Your task to perform on an android device: Show me the best rated 4K TV on Walmart. Image 0: 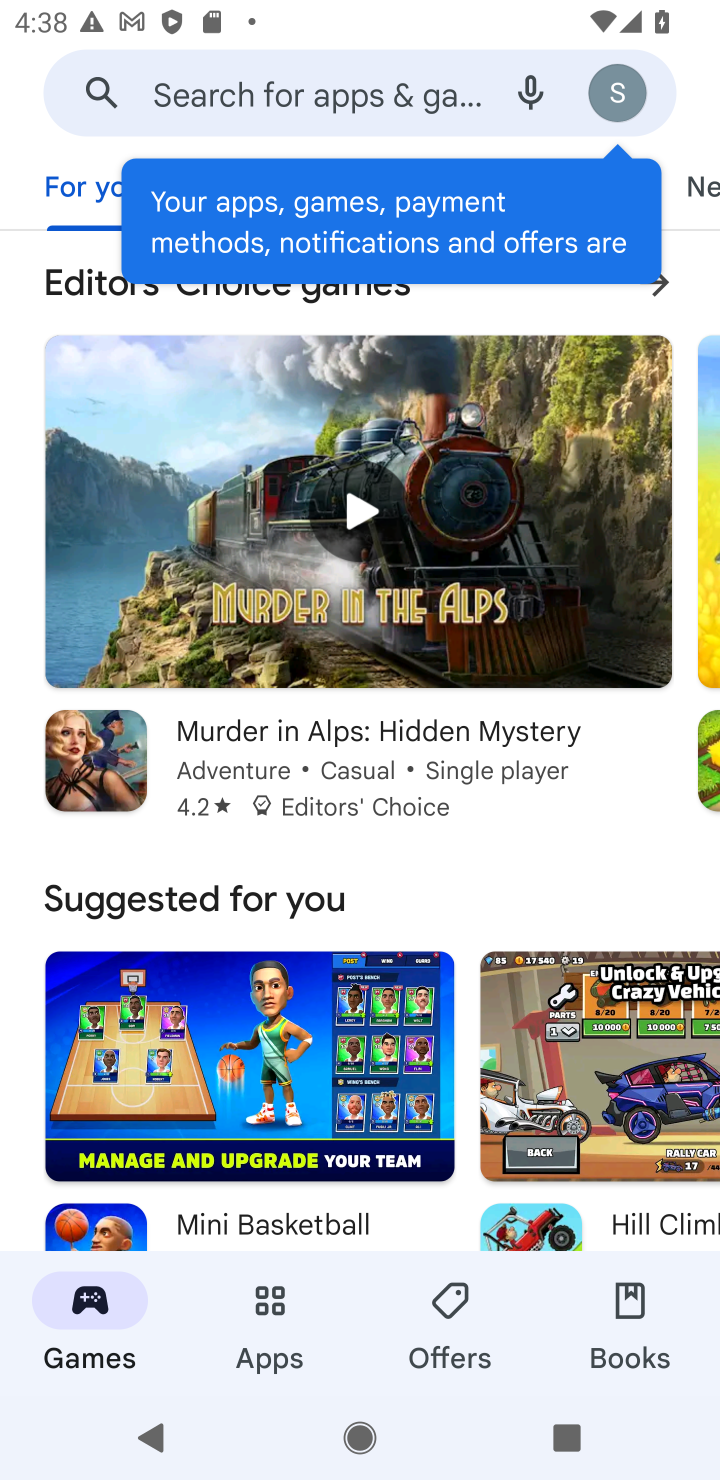
Step 0: press home button
Your task to perform on an android device: Show me the best rated 4K TV on Walmart. Image 1: 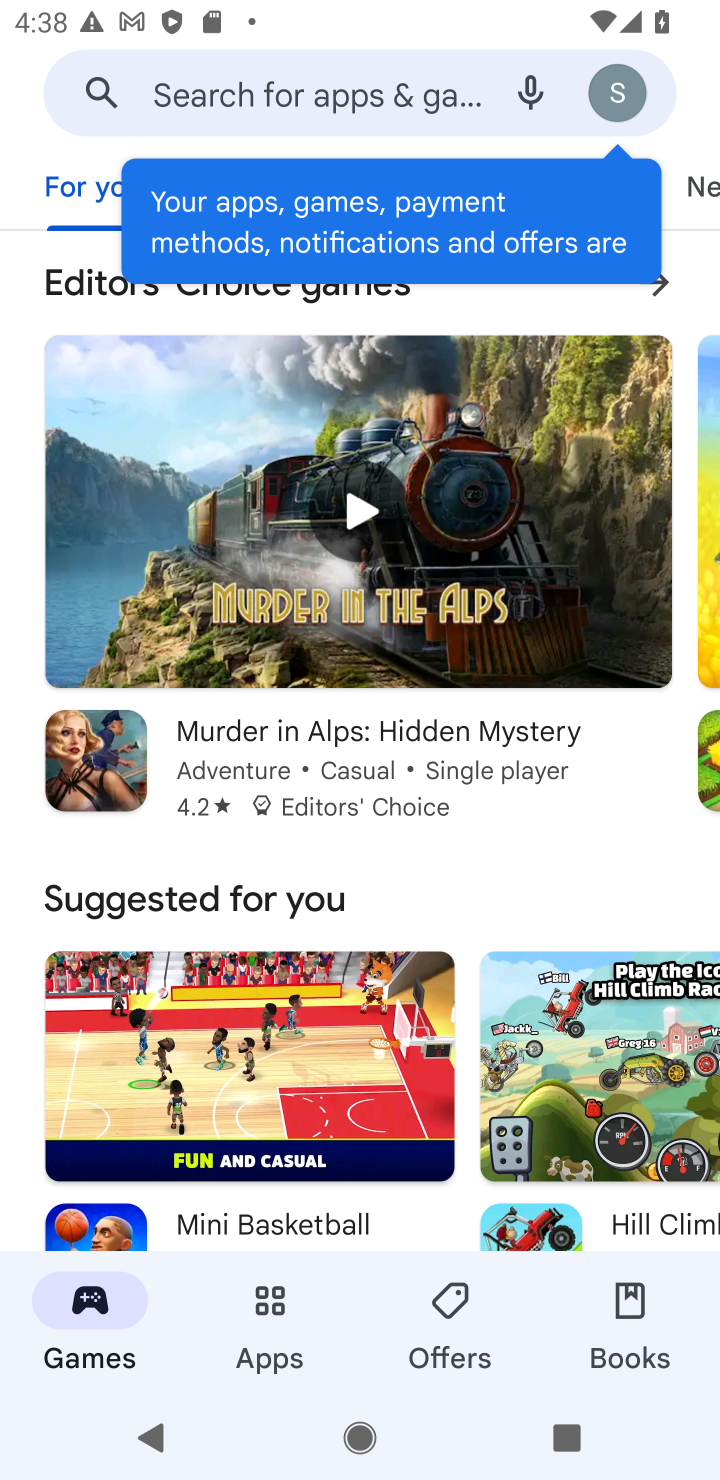
Step 1: press home button
Your task to perform on an android device: Show me the best rated 4K TV on Walmart. Image 2: 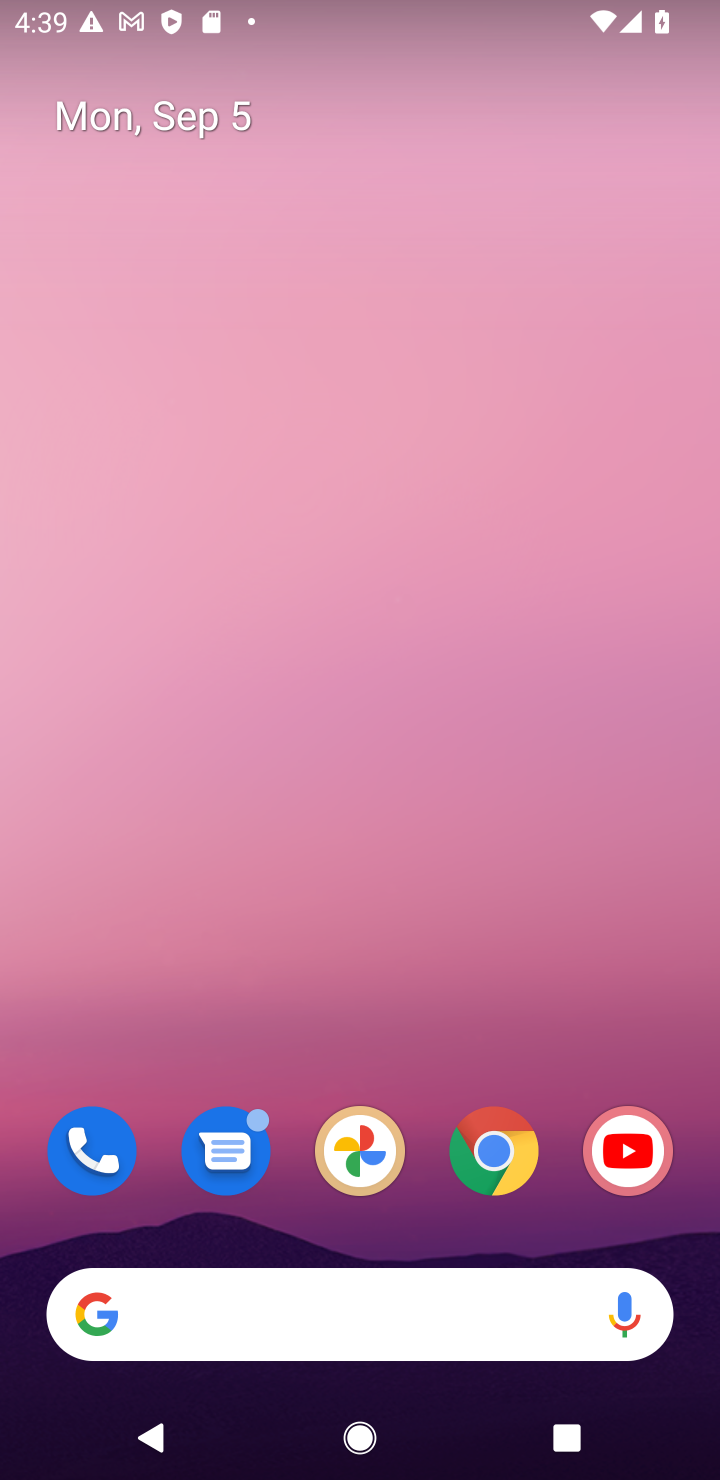
Step 2: click (509, 1157)
Your task to perform on an android device: Show me the best rated 4K TV on Walmart. Image 3: 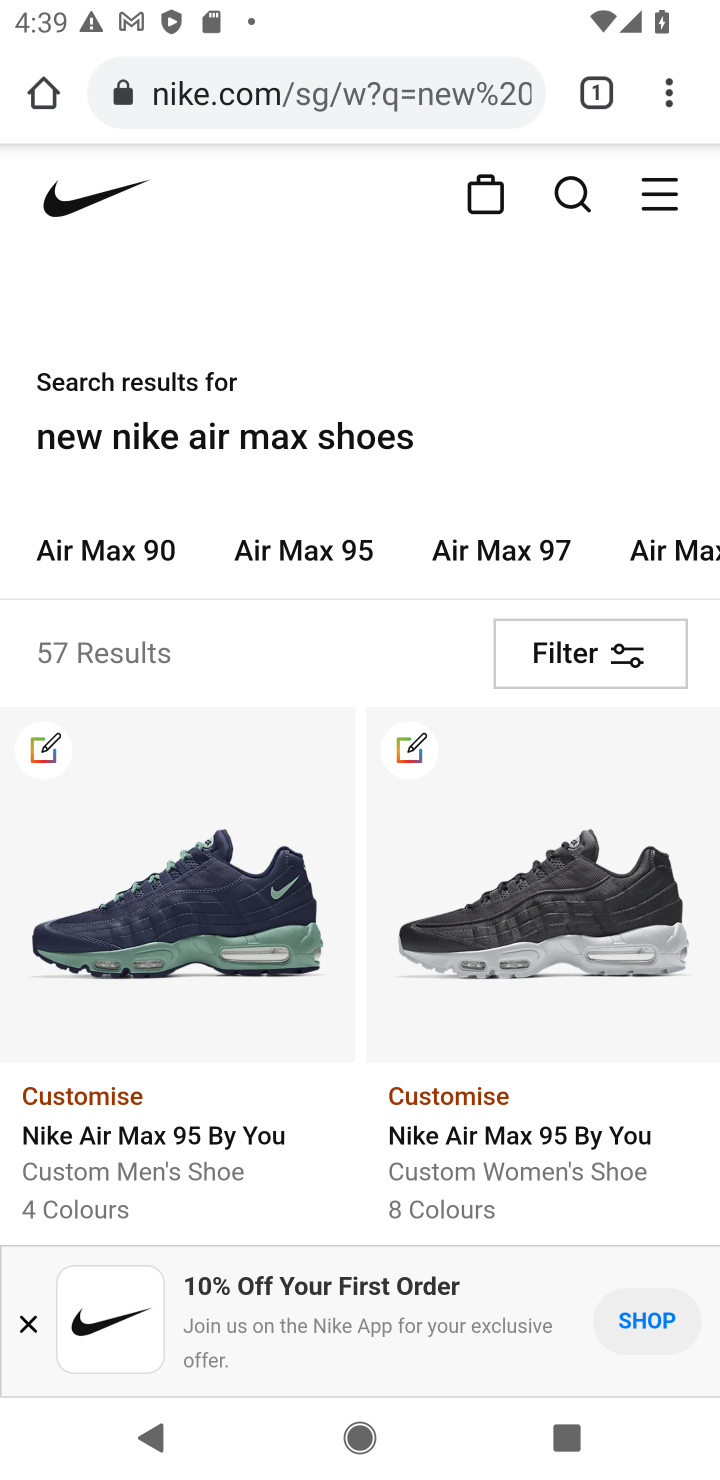
Step 3: click (493, 99)
Your task to perform on an android device: Show me the best rated 4K TV on Walmart. Image 4: 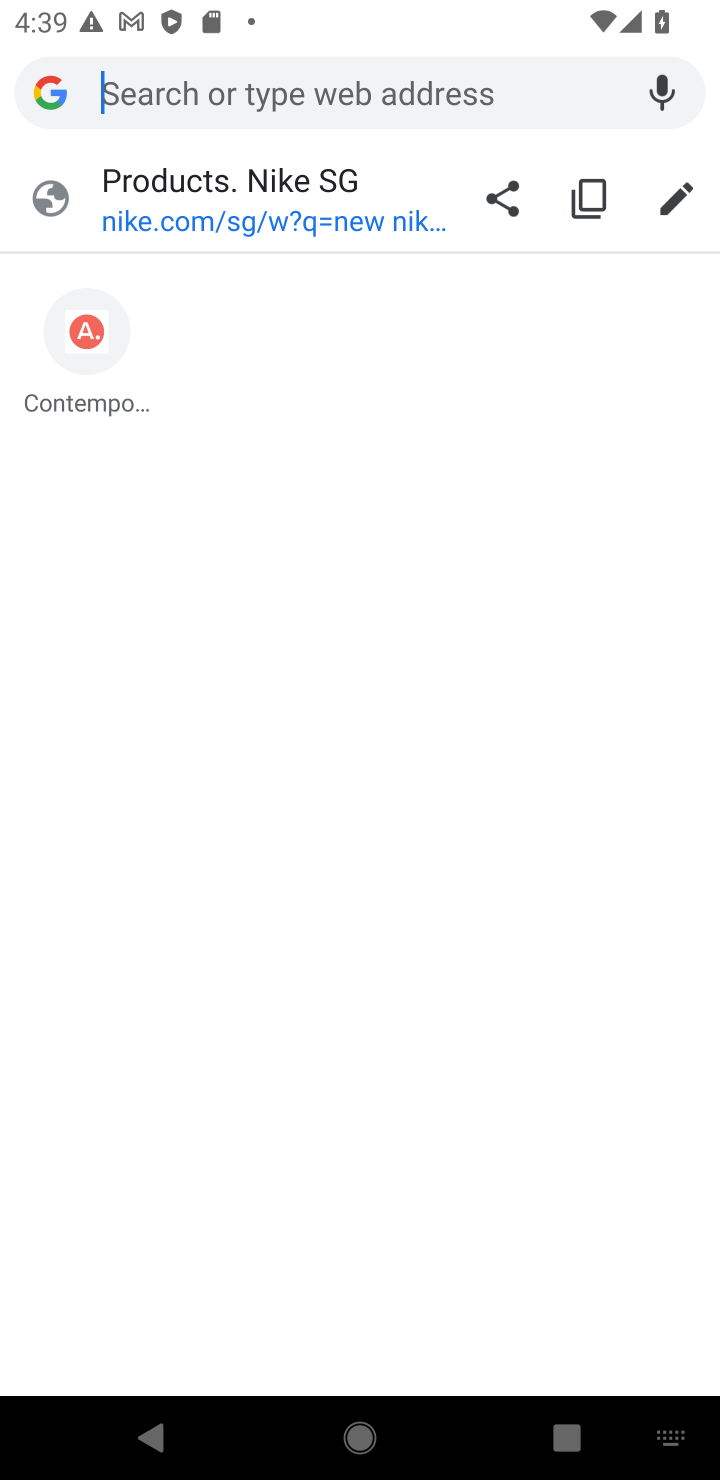
Step 4: type "walmart"
Your task to perform on an android device: Show me the best rated 4K TV on Walmart. Image 5: 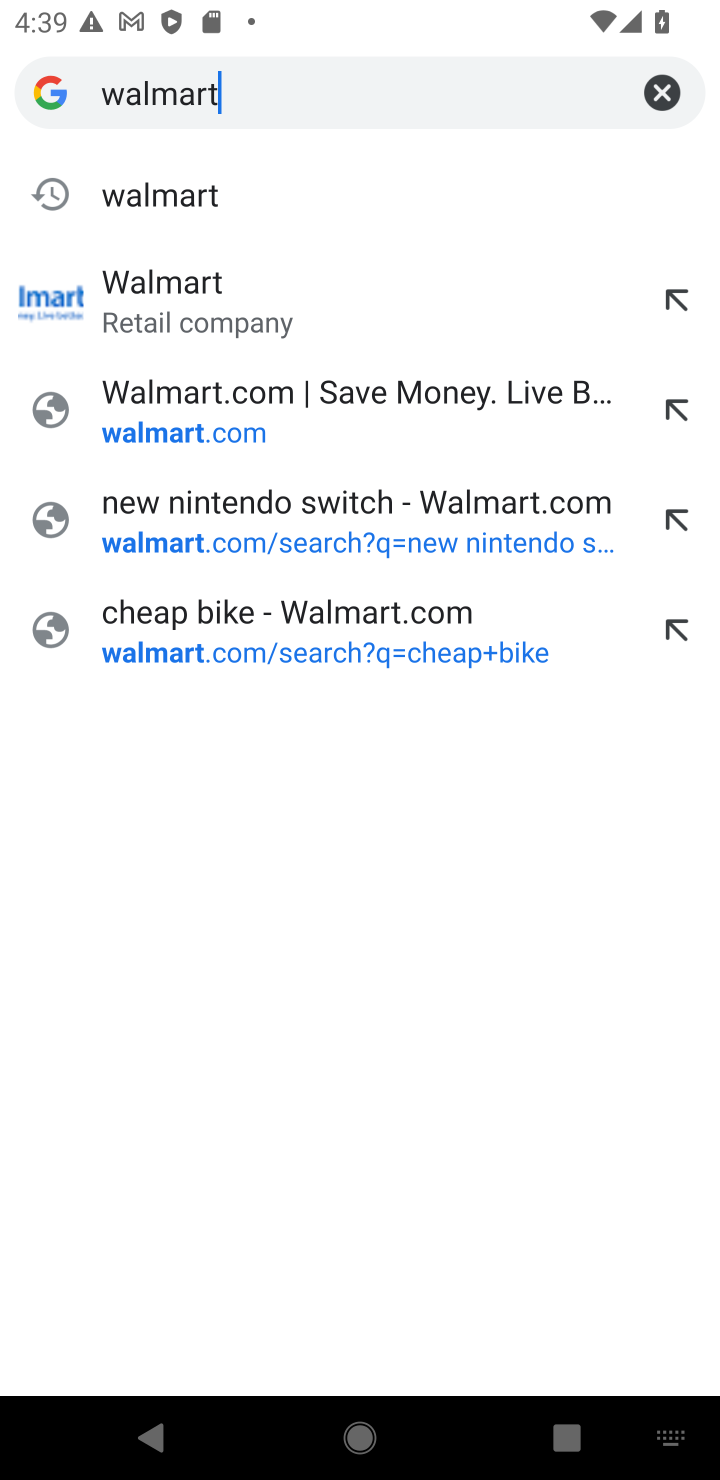
Step 5: click (309, 176)
Your task to perform on an android device: Show me the best rated 4K TV on Walmart. Image 6: 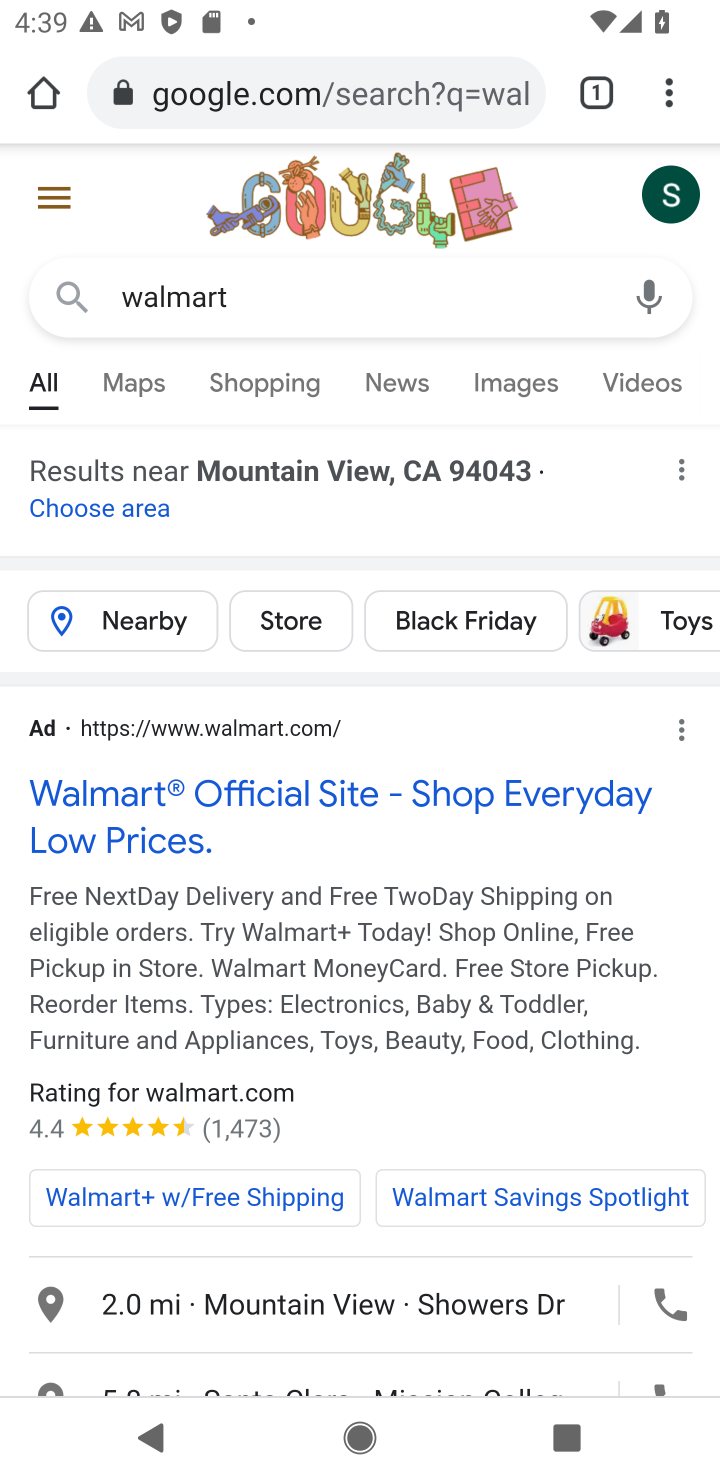
Step 6: drag from (363, 837) to (464, 364)
Your task to perform on an android device: Show me the best rated 4K TV on Walmart. Image 7: 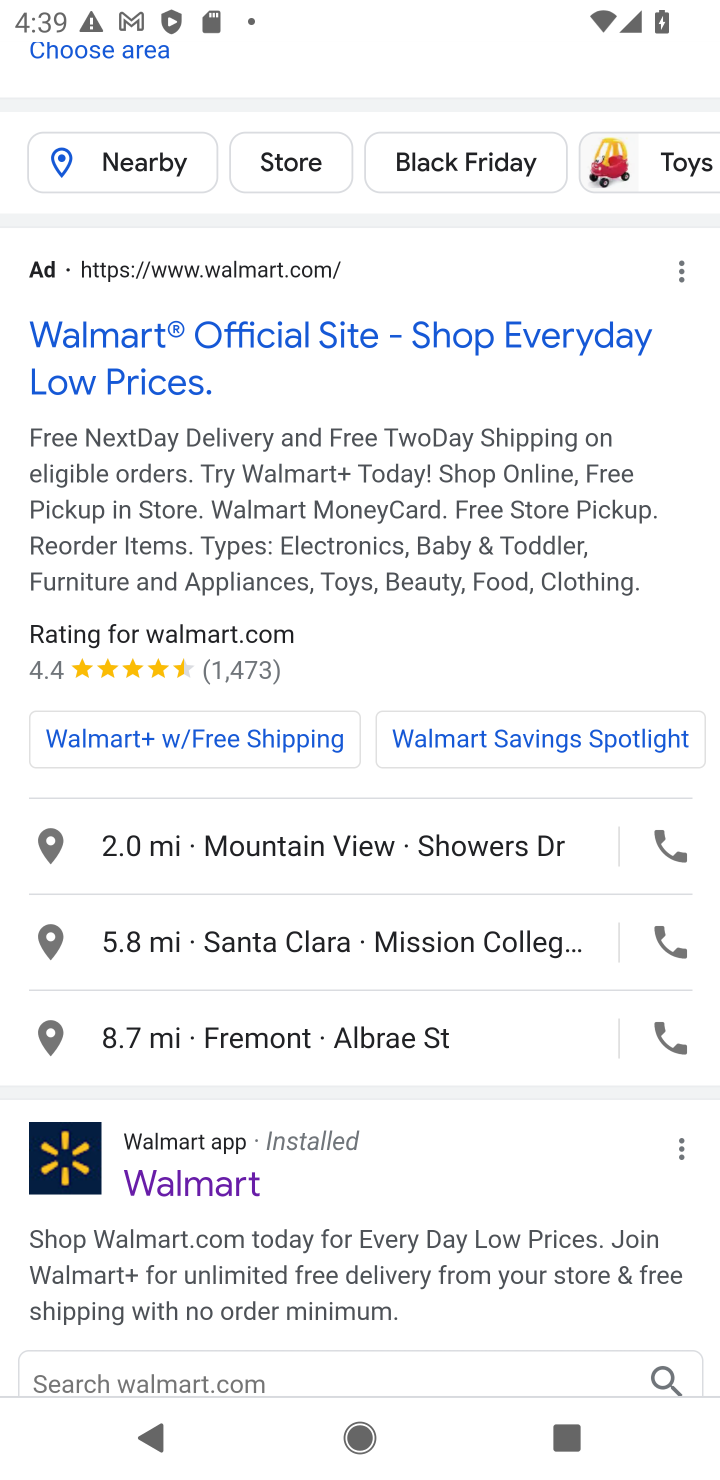
Step 7: drag from (412, 847) to (442, 502)
Your task to perform on an android device: Show me the best rated 4K TV on Walmart. Image 8: 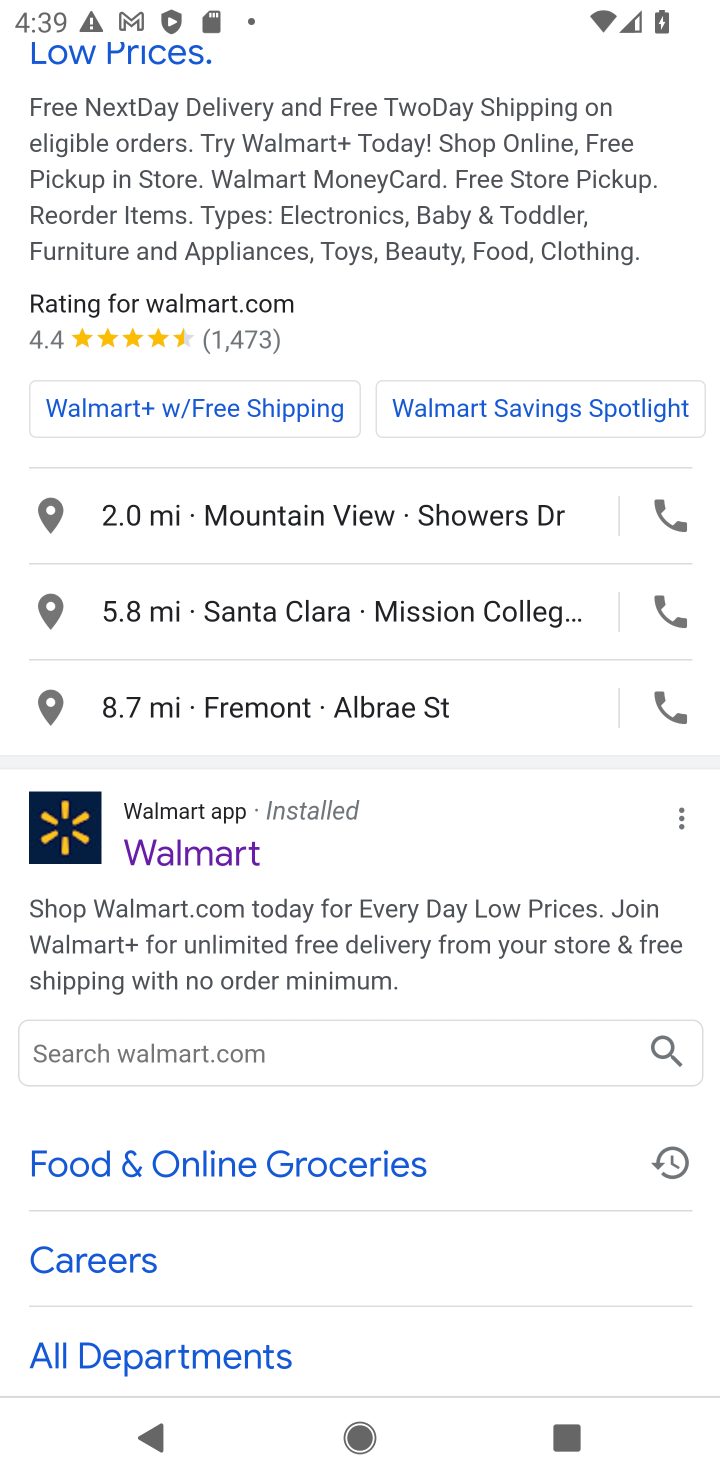
Step 8: click (209, 858)
Your task to perform on an android device: Show me the best rated 4K TV on Walmart. Image 9: 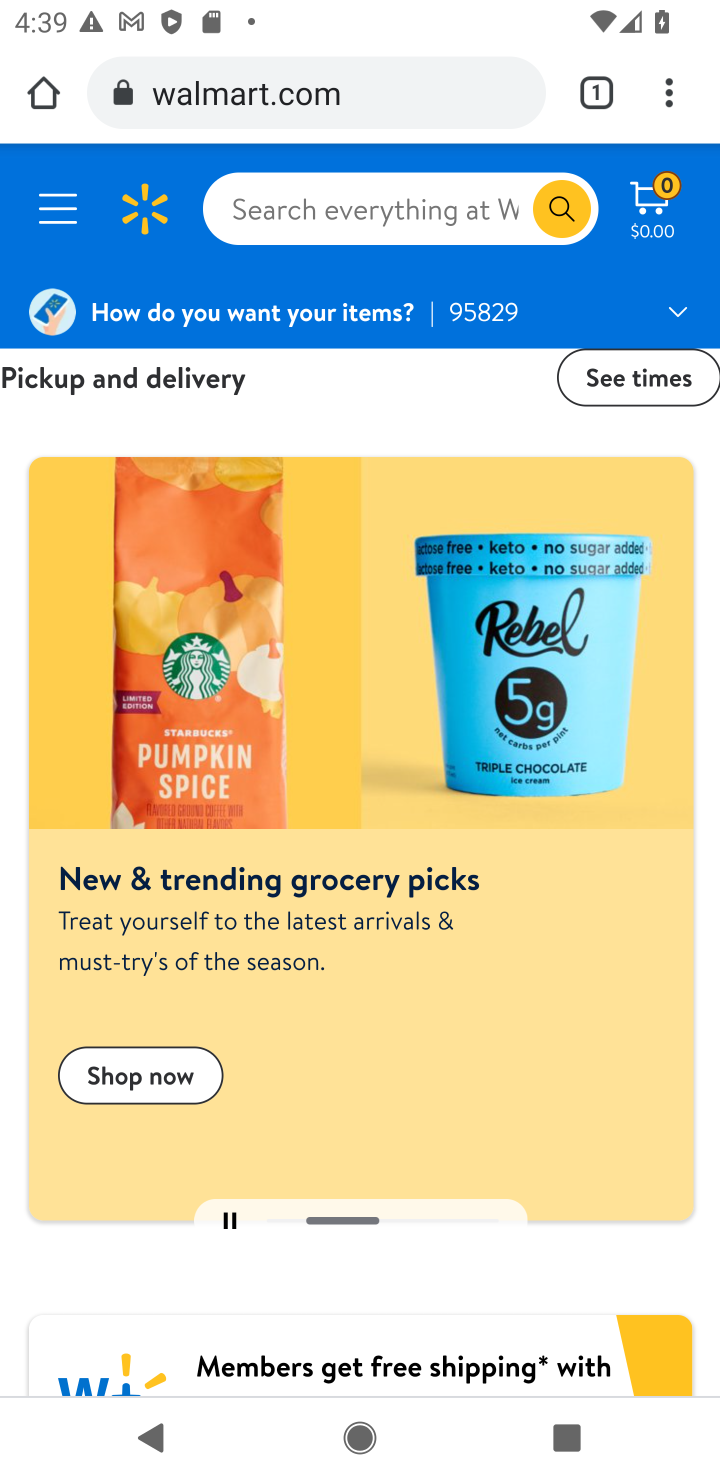
Step 9: click (472, 201)
Your task to perform on an android device: Show me the best rated 4K TV on Walmart. Image 10: 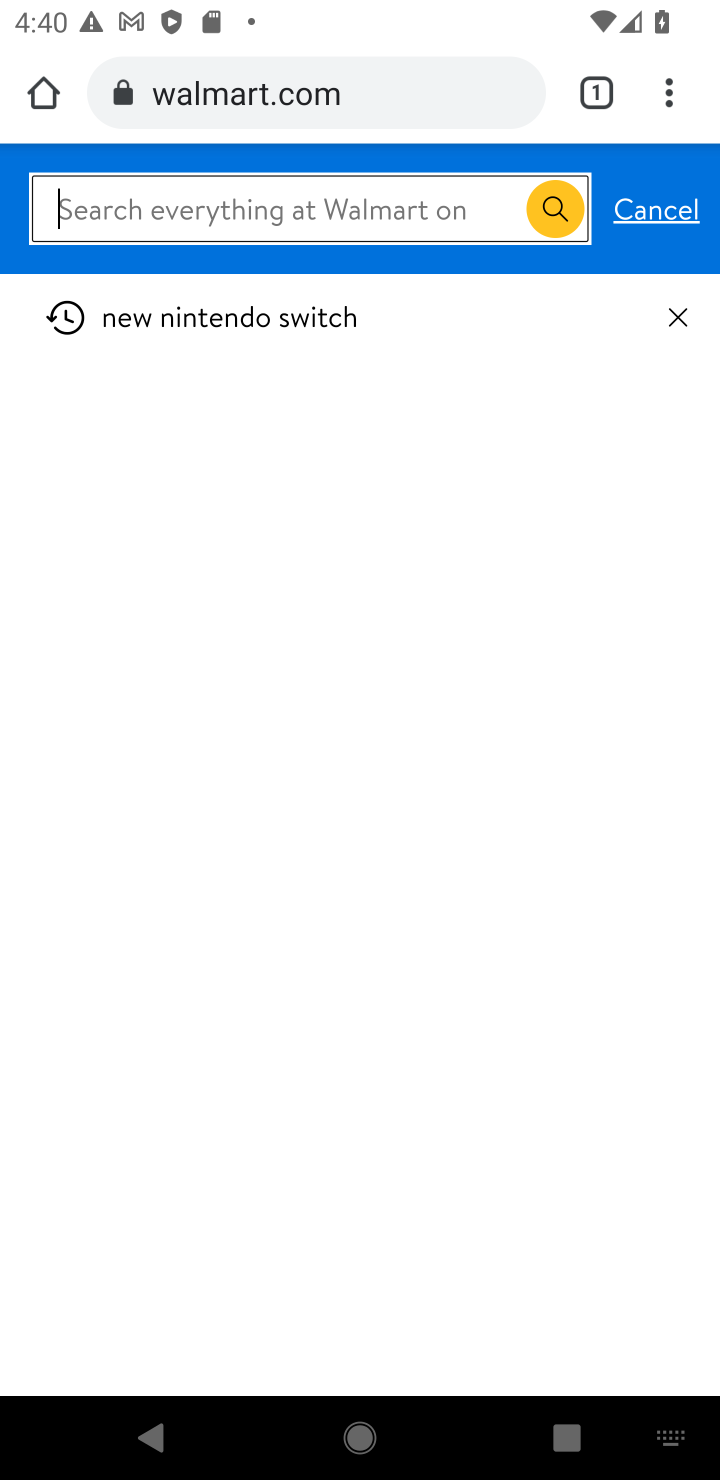
Step 10: type "best 4k "
Your task to perform on an android device: Show me the best rated 4K TV on Walmart. Image 11: 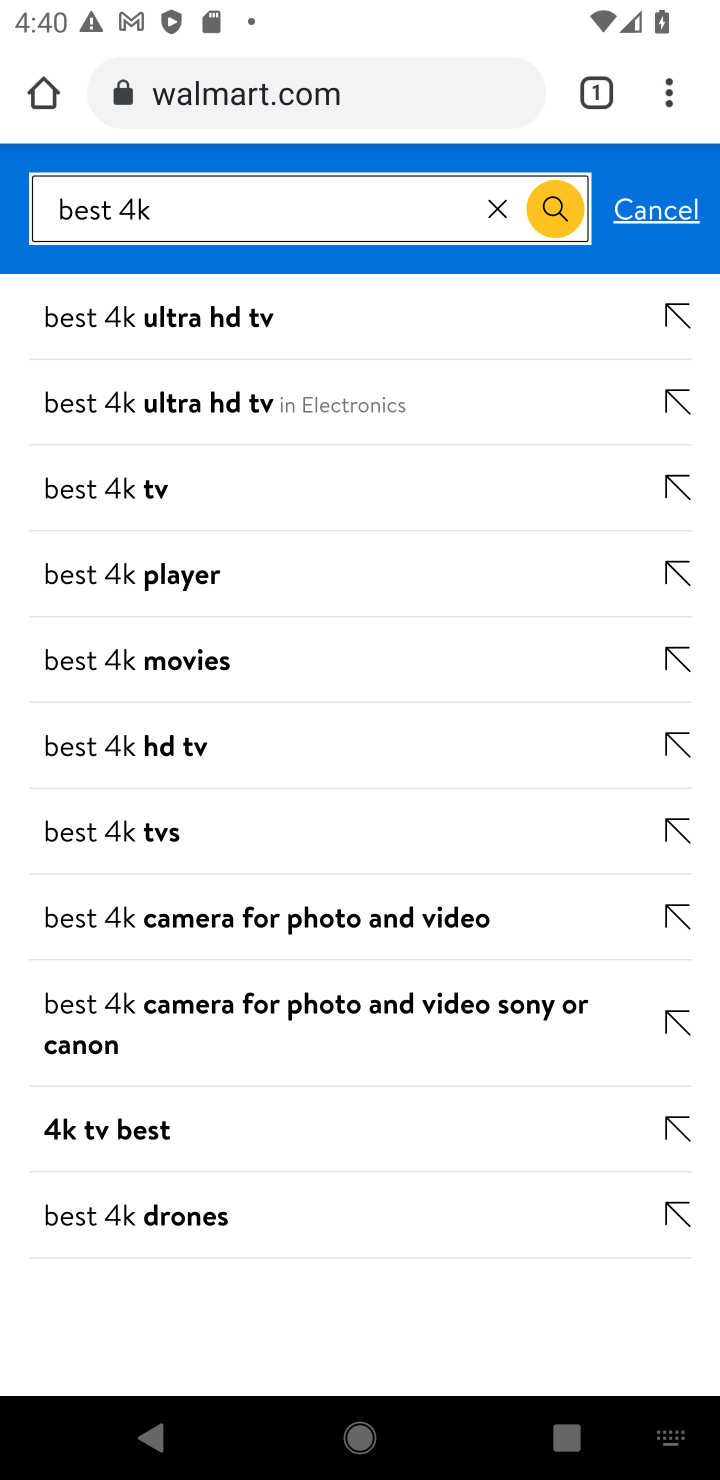
Step 11: click (496, 217)
Your task to perform on an android device: Show me the best rated 4K TV on Walmart. Image 12: 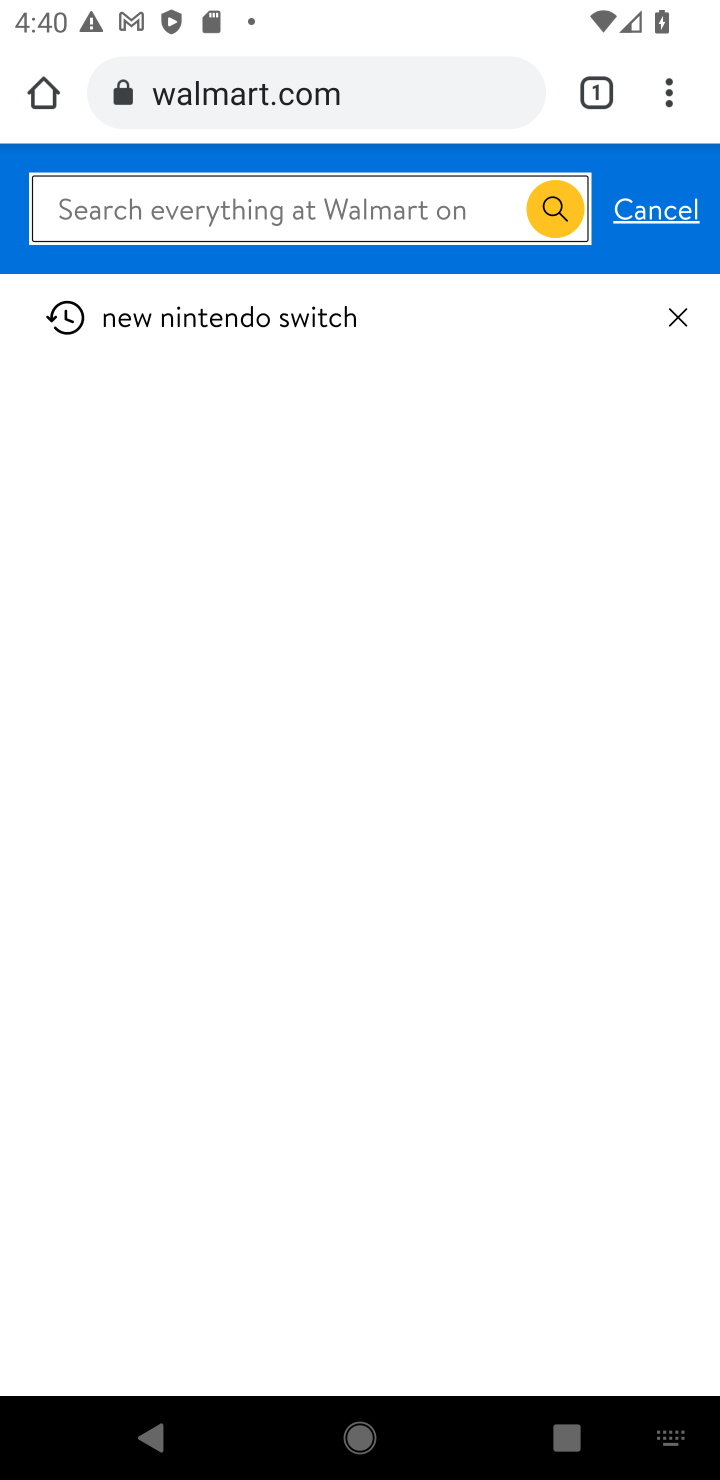
Step 12: type "best rated 4k TV"
Your task to perform on an android device: Show me the best rated 4K TV on Walmart. Image 13: 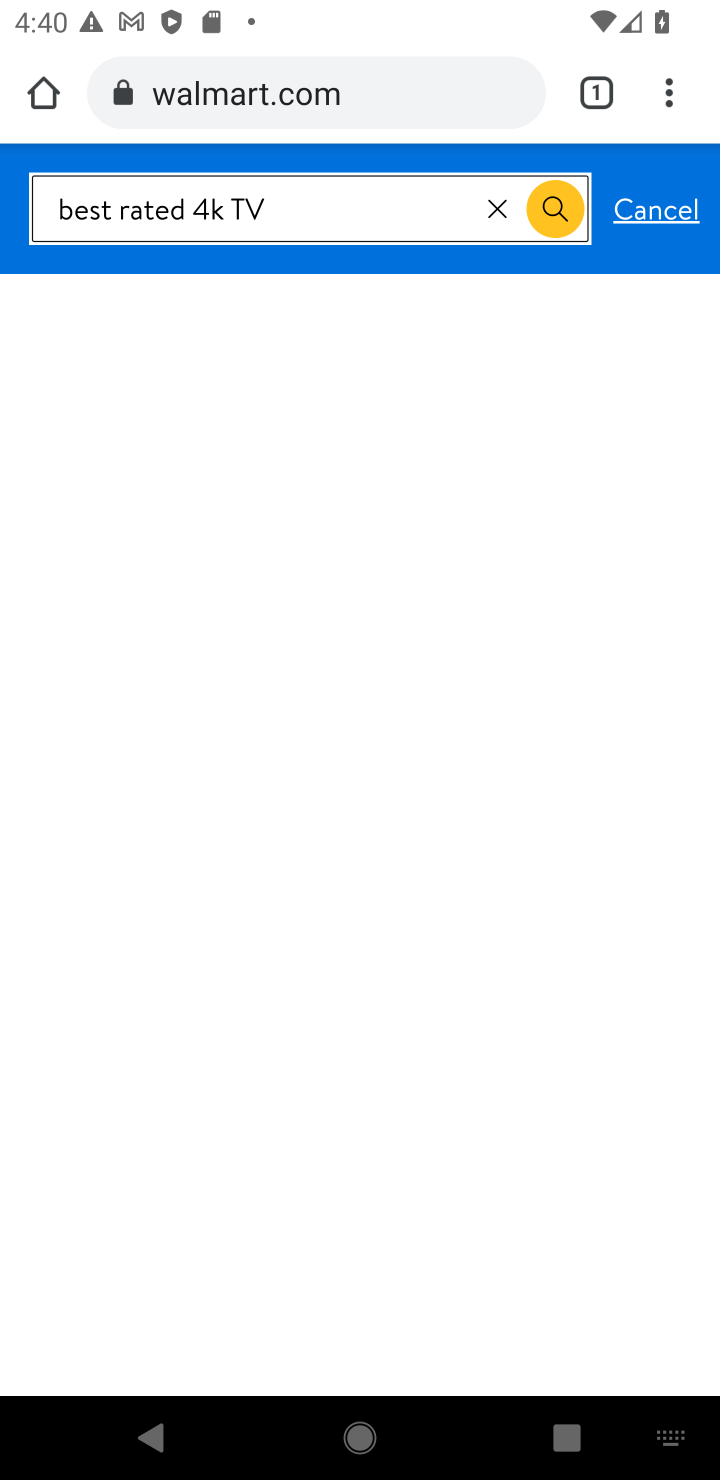
Step 13: click (553, 199)
Your task to perform on an android device: Show me the best rated 4K TV on Walmart. Image 14: 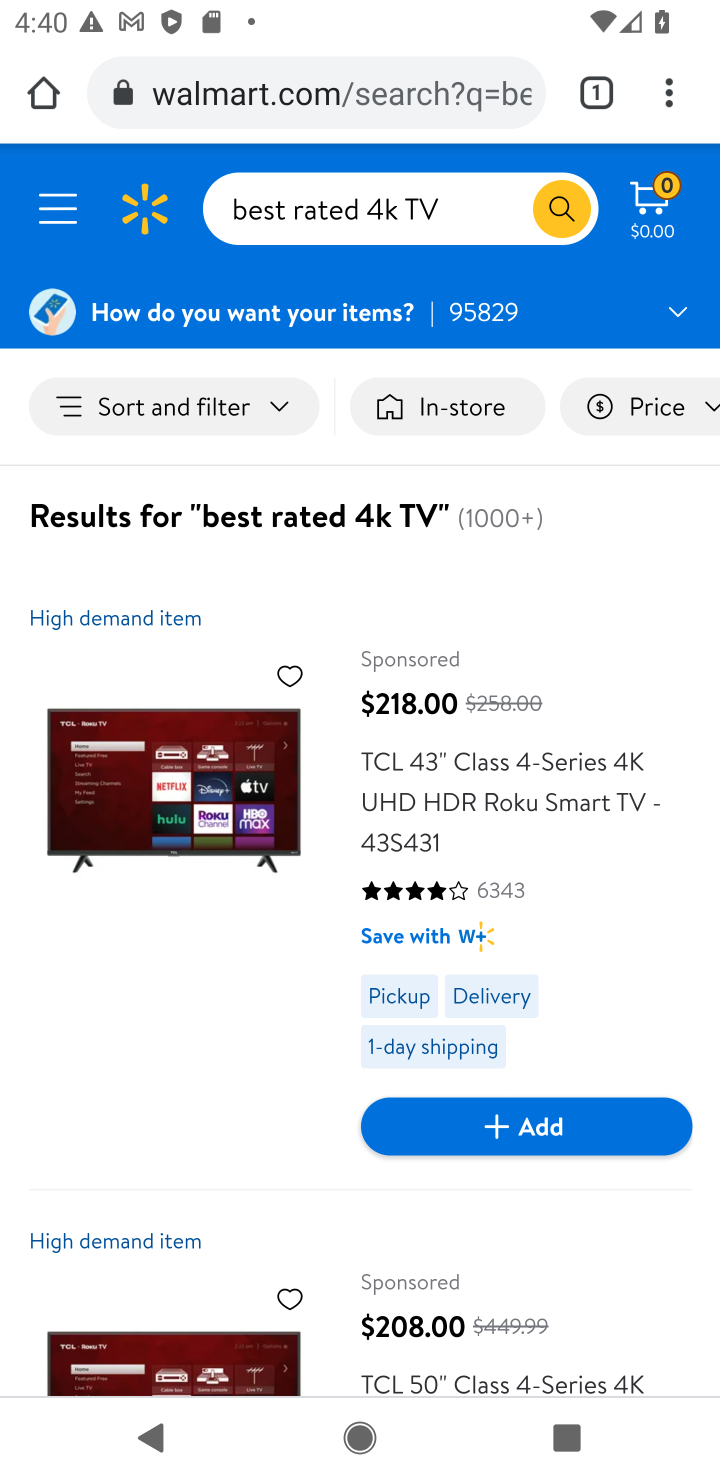
Step 14: task complete